Your task to perform on an android device: manage bookmarks in the chrome app Image 0: 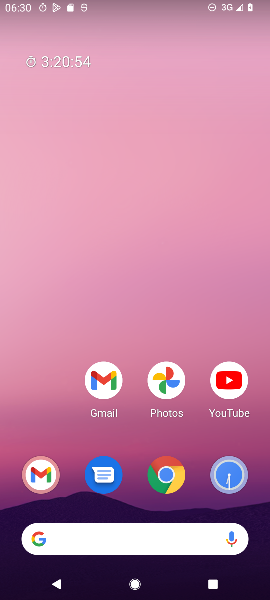
Step 0: press home button
Your task to perform on an android device: manage bookmarks in the chrome app Image 1: 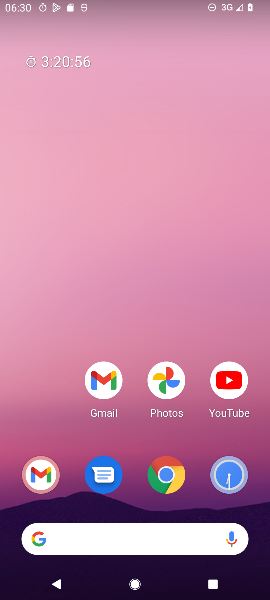
Step 1: drag from (67, 430) to (63, 225)
Your task to perform on an android device: manage bookmarks in the chrome app Image 2: 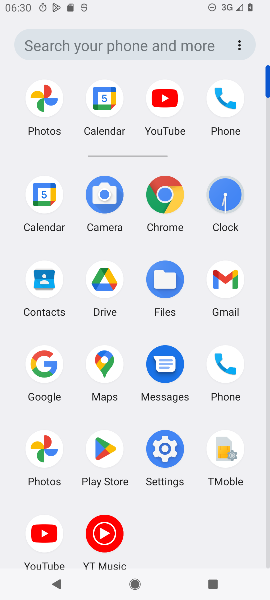
Step 2: click (176, 191)
Your task to perform on an android device: manage bookmarks in the chrome app Image 3: 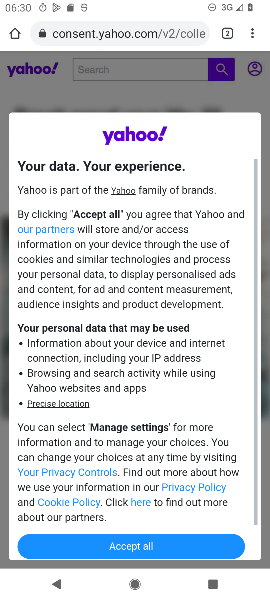
Step 3: click (253, 38)
Your task to perform on an android device: manage bookmarks in the chrome app Image 4: 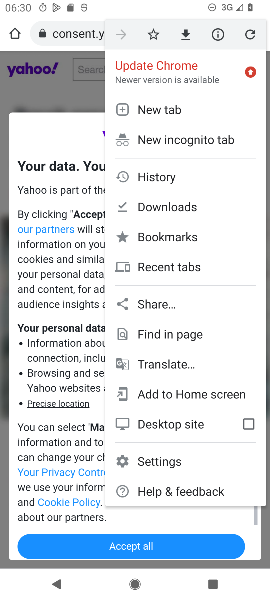
Step 4: drag from (232, 326) to (229, 250)
Your task to perform on an android device: manage bookmarks in the chrome app Image 5: 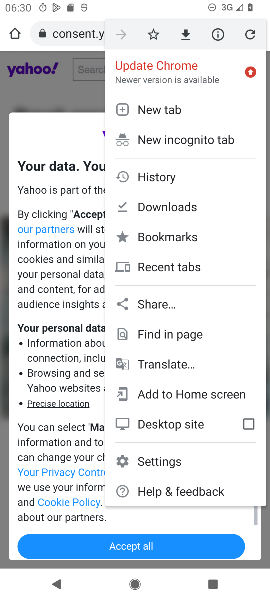
Step 5: click (208, 241)
Your task to perform on an android device: manage bookmarks in the chrome app Image 6: 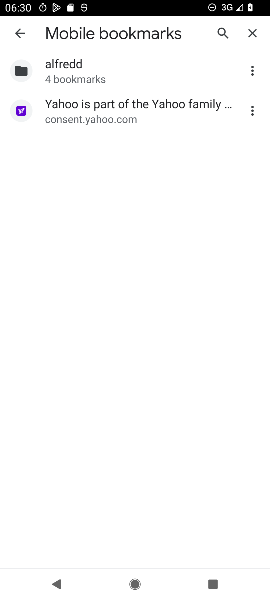
Step 6: click (252, 72)
Your task to perform on an android device: manage bookmarks in the chrome app Image 7: 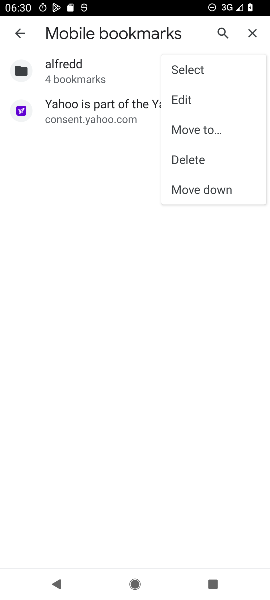
Step 7: click (205, 97)
Your task to perform on an android device: manage bookmarks in the chrome app Image 8: 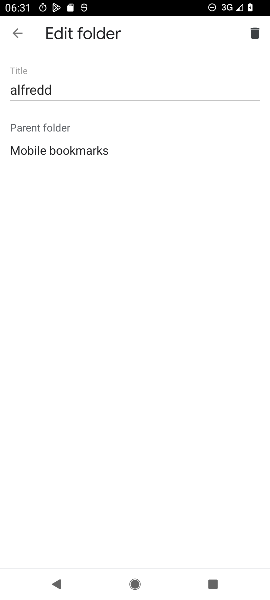
Step 8: click (91, 81)
Your task to perform on an android device: manage bookmarks in the chrome app Image 9: 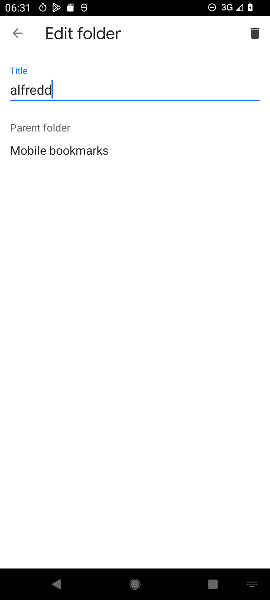
Step 9: type "dd"
Your task to perform on an android device: manage bookmarks in the chrome app Image 10: 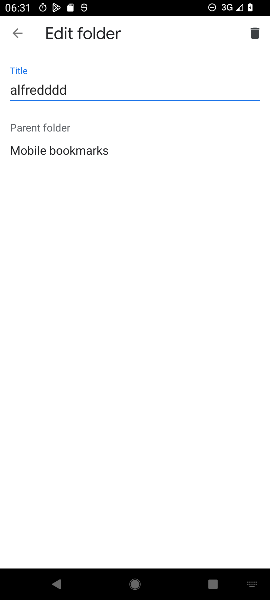
Step 10: click (22, 29)
Your task to perform on an android device: manage bookmarks in the chrome app Image 11: 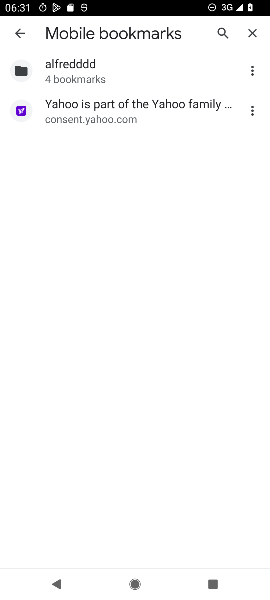
Step 11: task complete